Your task to perform on an android device: turn pop-ups off in chrome Image 0: 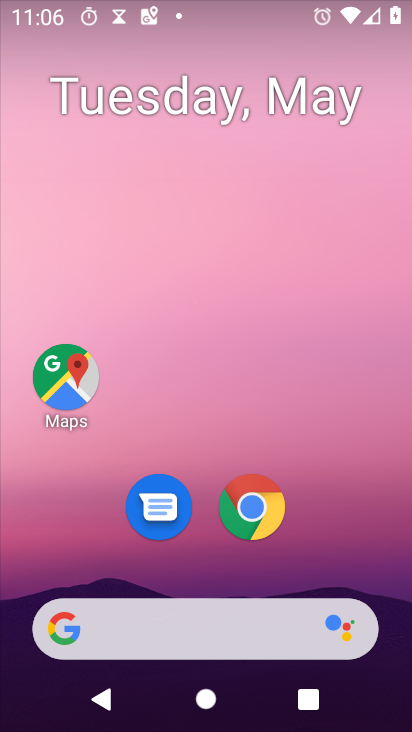
Step 0: click (260, 504)
Your task to perform on an android device: turn pop-ups off in chrome Image 1: 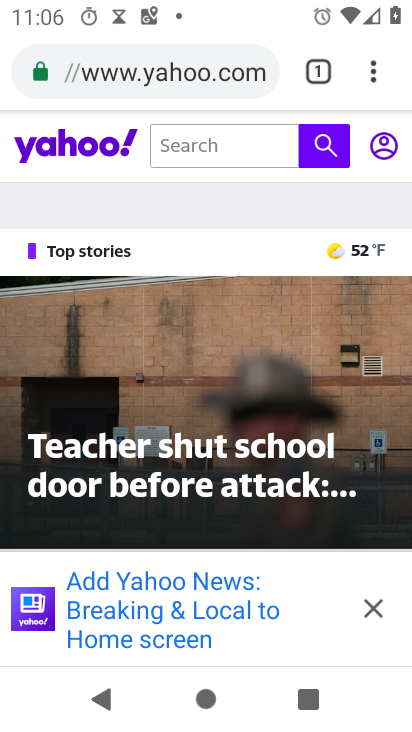
Step 1: click (376, 71)
Your task to perform on an android device: turn pop-ups off in chrome Image 2: 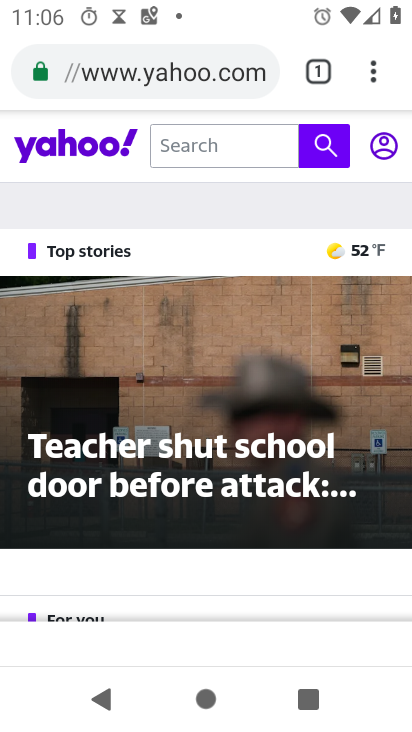
Step 2: click (385, 61)
Your task to perform on an android device: turn pop-ups off in chrome Image 3: 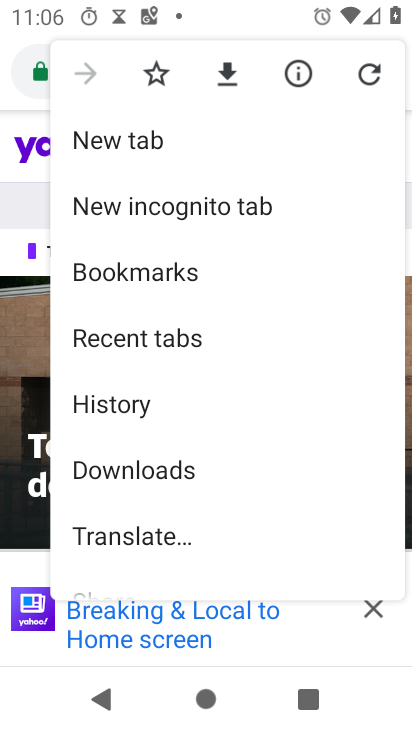
Step 3: drag from (138, 490) to (349, 146)
Your task to perform on an android device: turn pop-ups off in chrome Image 4: 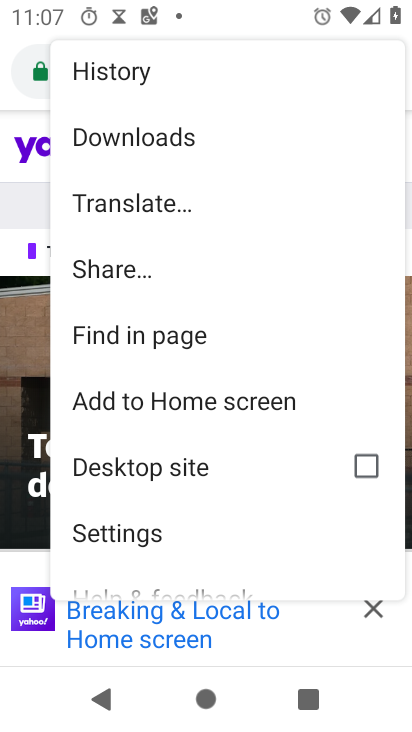
Step 4: click (149, 537)
Your task to perform on an android device: turn pop-ups off in chrome Image 5: 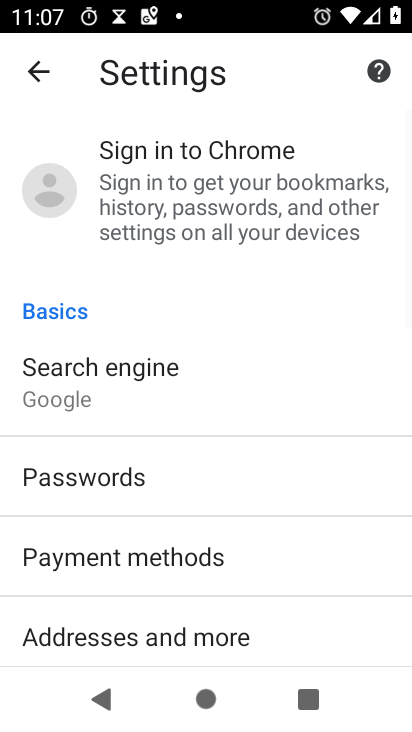
Step 5: drag from (14, 529) to (193, 81)
Your task to perform on an android device: turn pop-ups off in chrome Image 6: 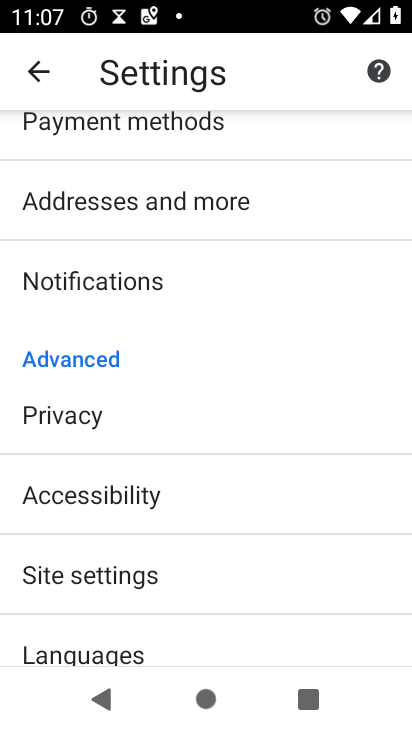
Step 6: click (103, 571)
Your task to perform on an android device: turn pop-ups off in chrome Image 7: 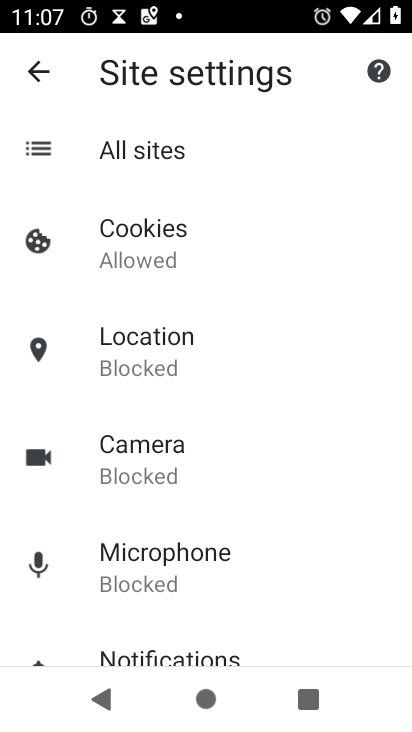
Step 7: drag from (9, 630) to (279, 57)
Your task to perform on an android device: turn pop-ups off in chrome Image 8: 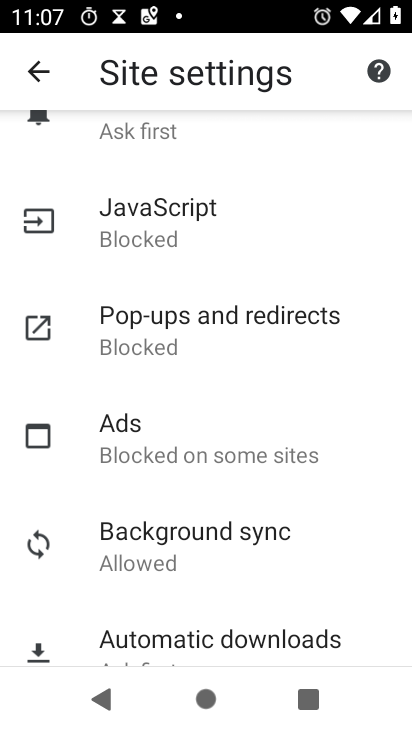
Step 8: click (99, 341)
Your task to perform on an android device: turn pop-ups off in chrome Image 9: 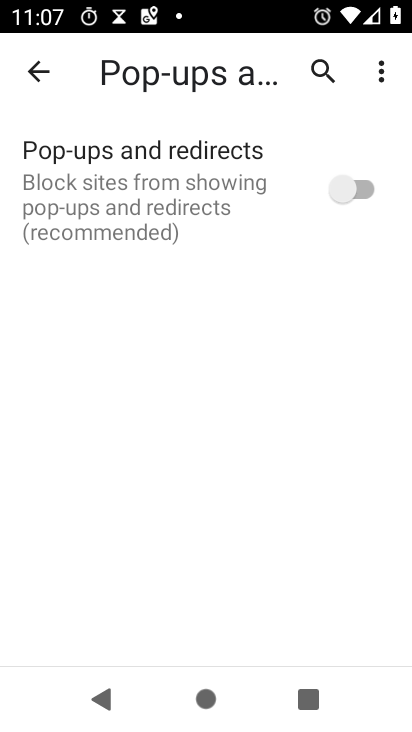
Step 9: task complete